Your task to perform on an android device: Go to sound settings Image 0: 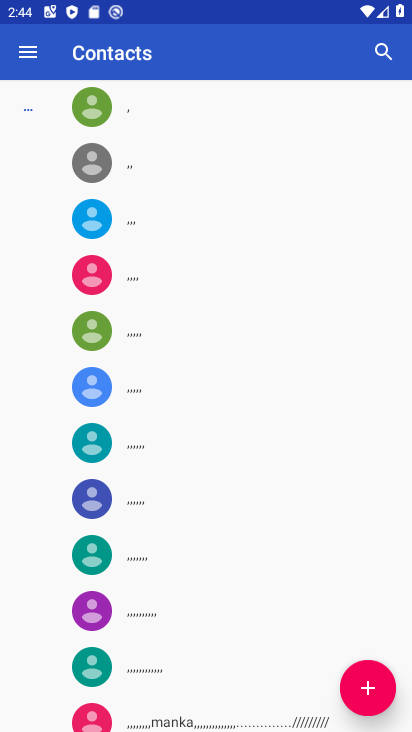
Step 0: press home button
Your task to perform on an android device: Go to sound settings Image 1: 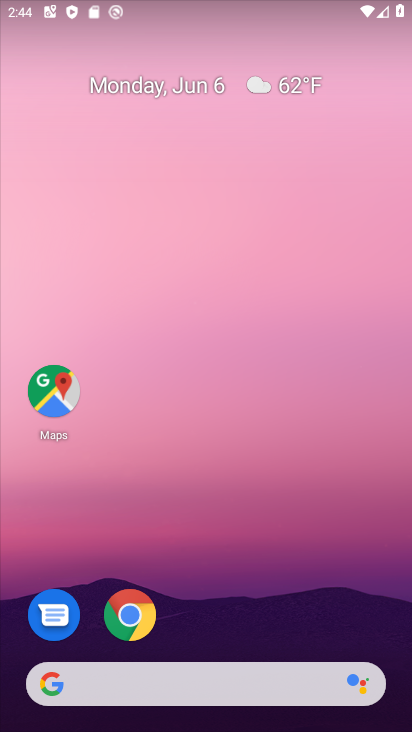
Step 1: drag from (278, 658) to (314, 13)
Your task to perform on an android device: Go to sound settings Image 2: 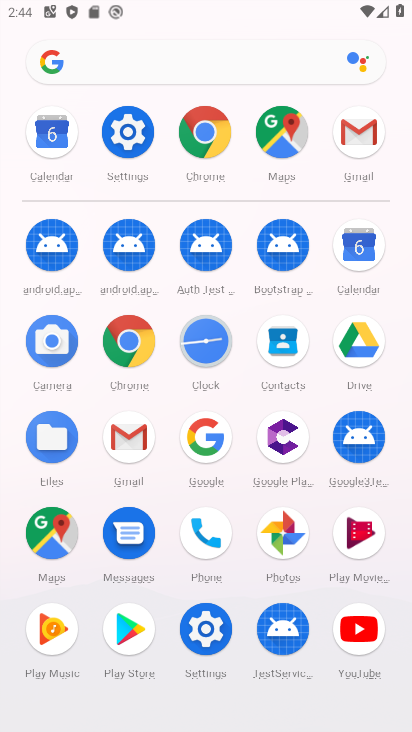
Step 2: click (132, 119)
Your task to perform on an android device: Go to sound settings Image 3: 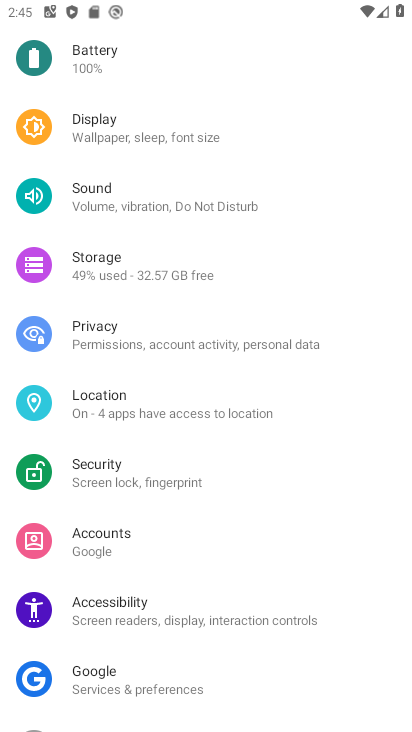
Step 3: click (110, 208)
Your task to perform on an android device: Go to sound settings Image 4: 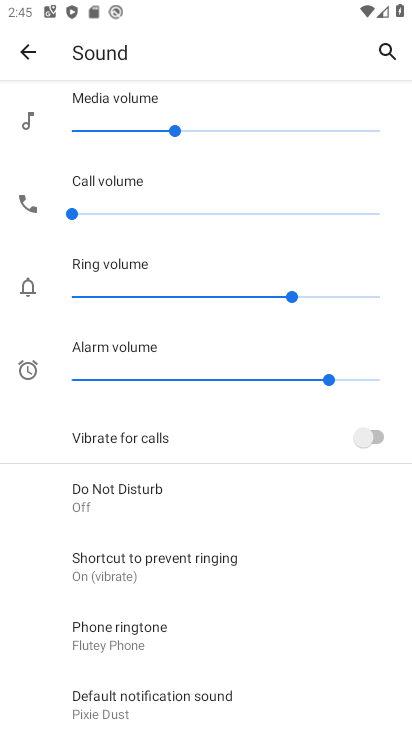
Step 4: task complete